Your task to perform on an android device: show emergency info Image 0: 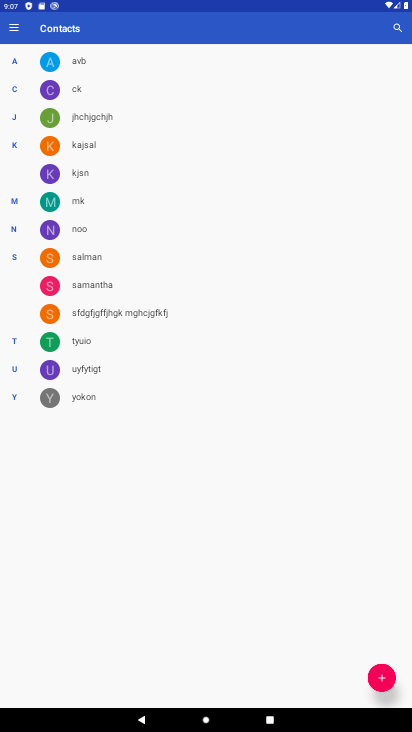
Step 0: press home button
Your task to perform on an android device: show emergency info Image 1: 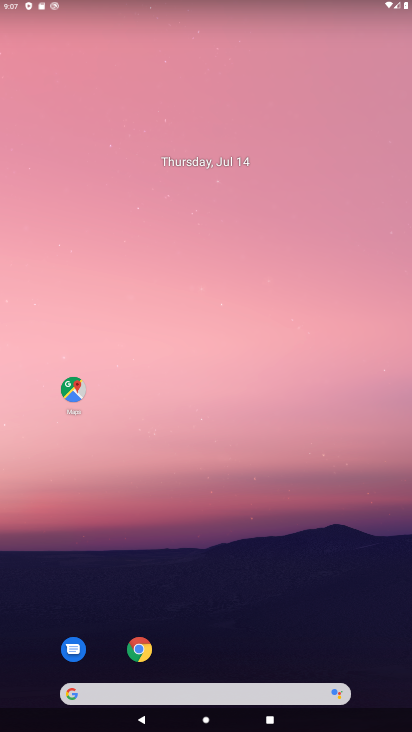
Step 1: drag from (207, 638) to (215, 38)
Your task to perform on an android device: show emergency info Image 2: 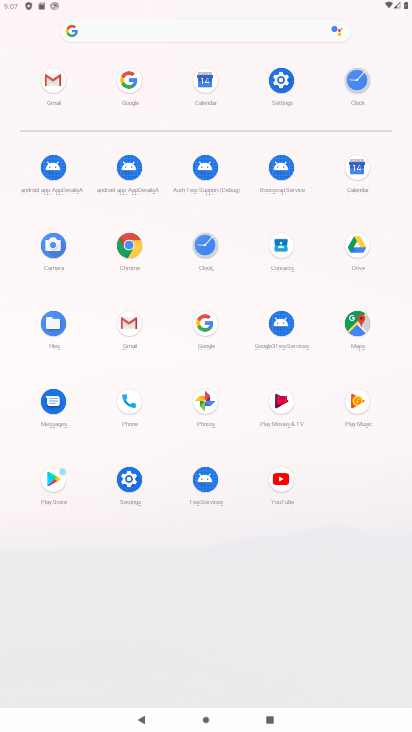
Step 2: click (278, 86)
Your task to perform on an android device: show emergency info Image 3: 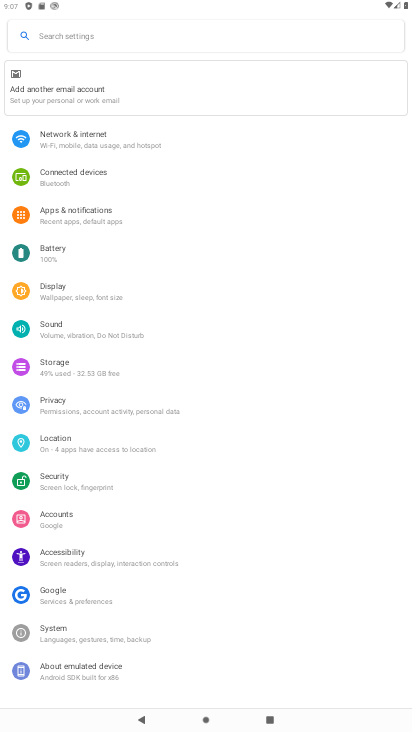
Step 3: click (107, 664)
Your task to perform on an android device: show emergency info Image 4: 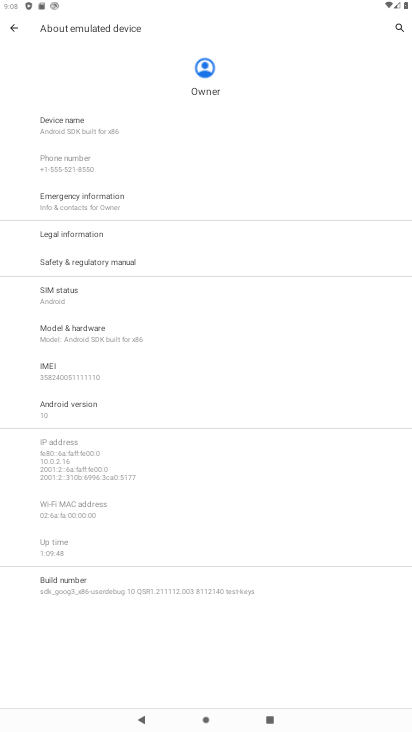
Step 4: click (44, 201)
Your task to perform on an android device: show emergency info Image 5: 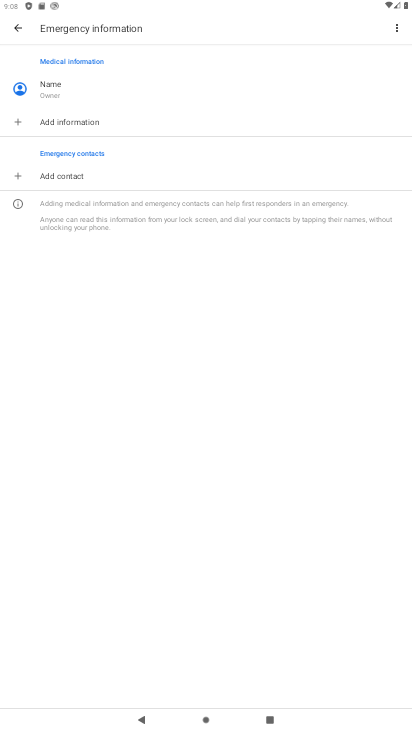
Step 5: task complete